Your task to perform on an android device: find photos in the google photos app Image 0: 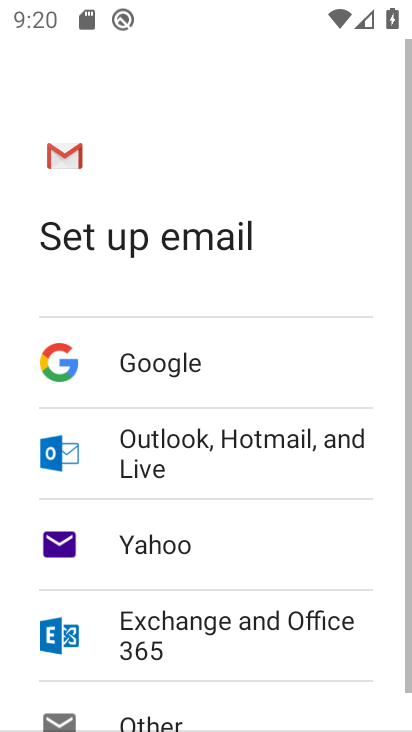
Step 0: press home button
Your task to perform on an android device: find photos in the google photos app Image 1: 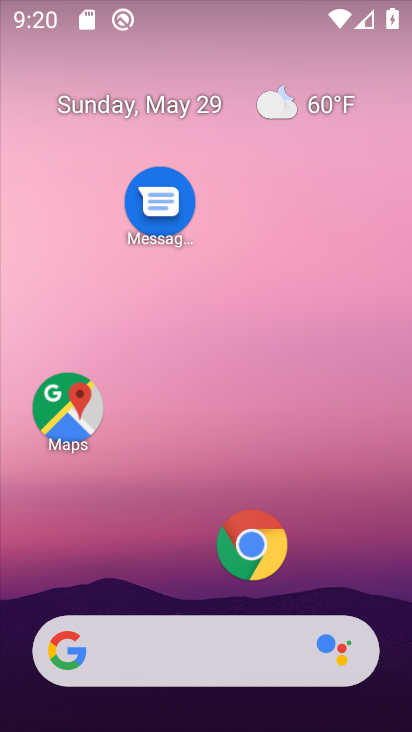
Step 1: drag from (148, 590) to (194, 211)
Your task to perform on an android device: find photos in the google photos app Image 2: 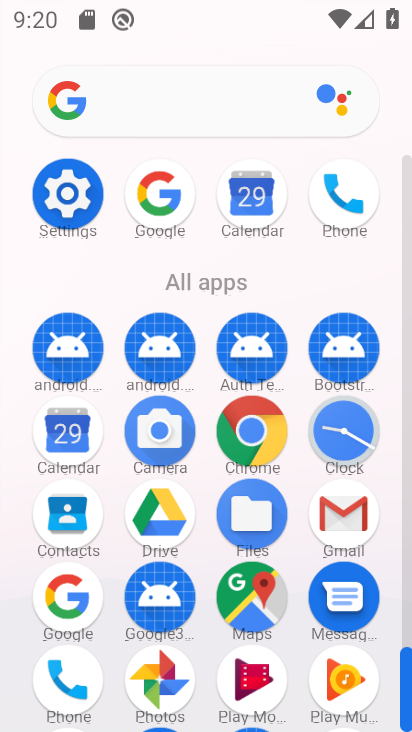
Step 2: click (165, 677)
Your task to perform on an android device: find photos in the google photos app Image 3: 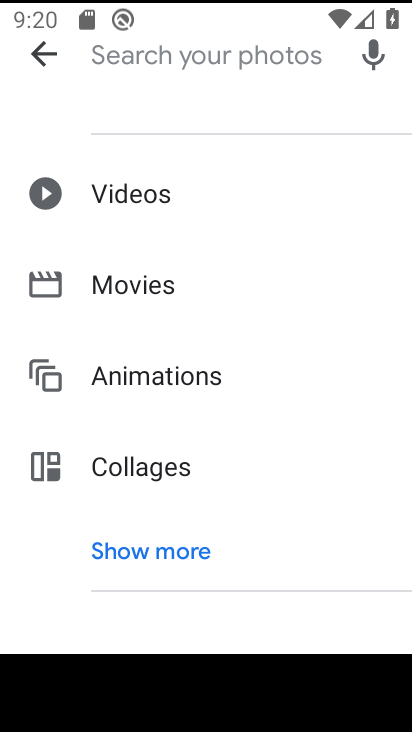
Step 3: type "album 09"
Your task to perform on an android device: find photos in the google photos app Image 4: 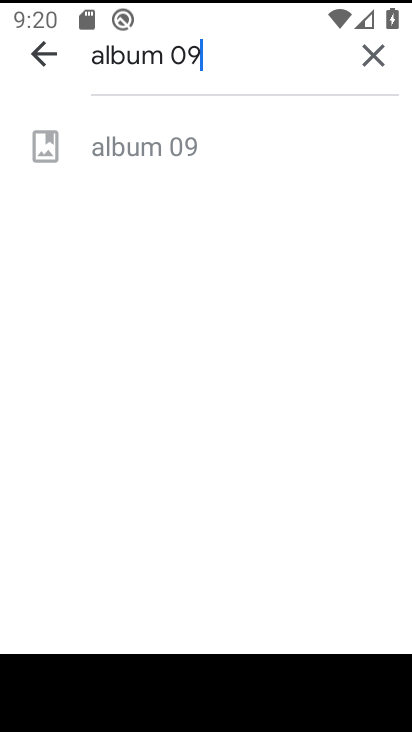
Step 4: click (160, 149)
Your task to perform on an android device: find photos in the google photos app Image 5: 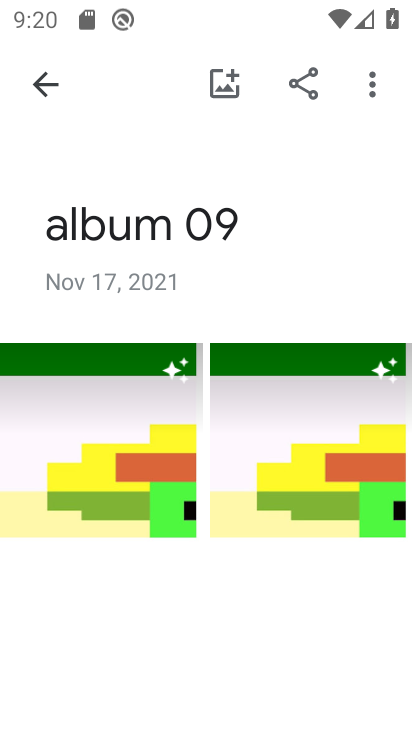
Step 5: task complete